Your task to perform on an android device: change your default location settings in chrome Image 0: 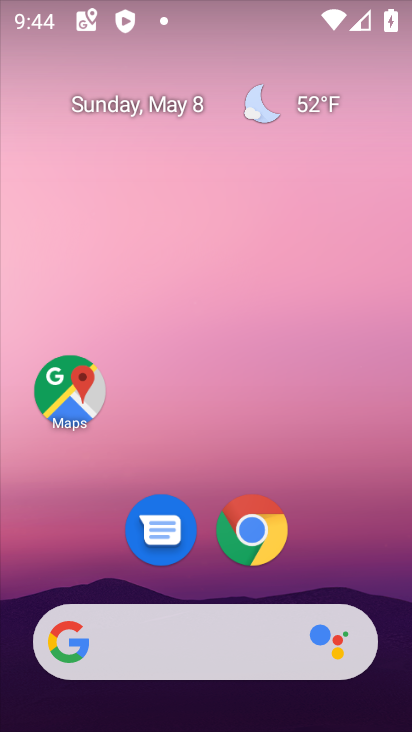
Step 0: drag from (373, 552) to (329, 126)
Your task to perform on an android device: change your default location settings in chrome Image 1: 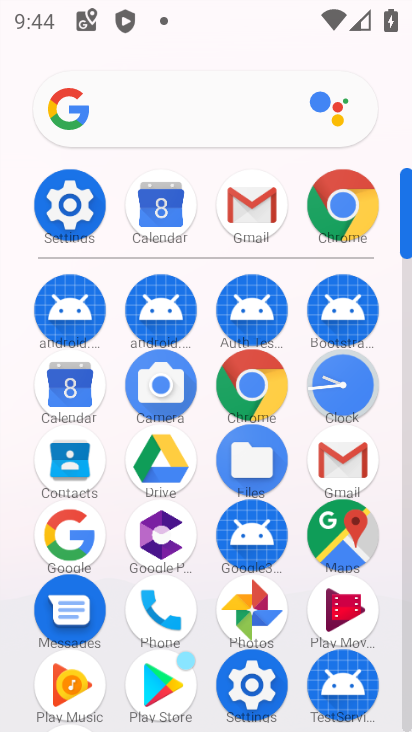
Step 1: click (266, 396)
Your task to perform on an android device: change your default location settings in chrome Image 2: 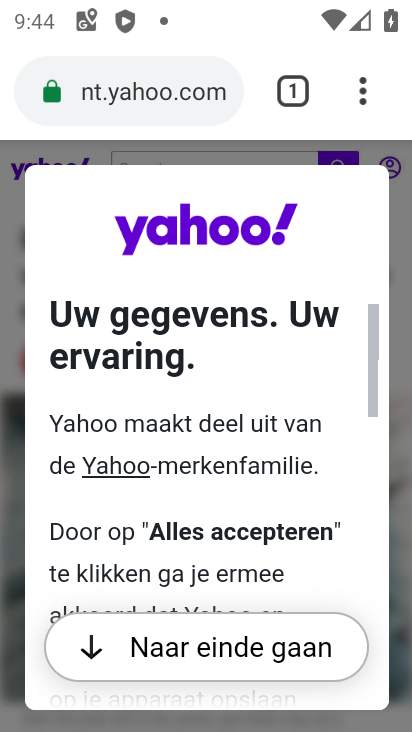
Step 2: click (226, 661)
Your task to perform on an android device: change your default location settings in chrome Image 3: 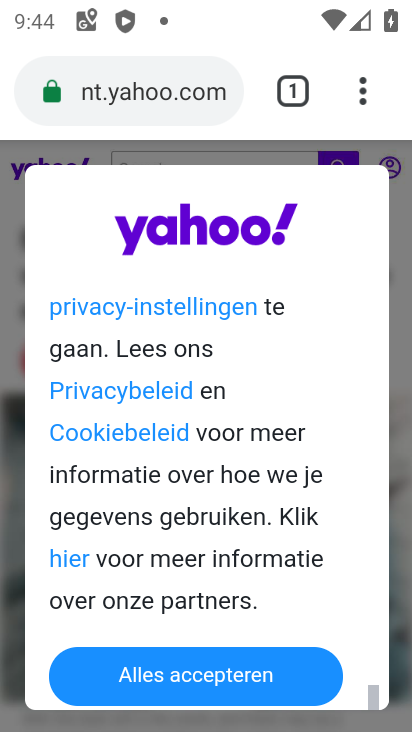
Step 3: click (239, 679)
Your task to perform on an android device: change your default location settings in chrome Image 4: 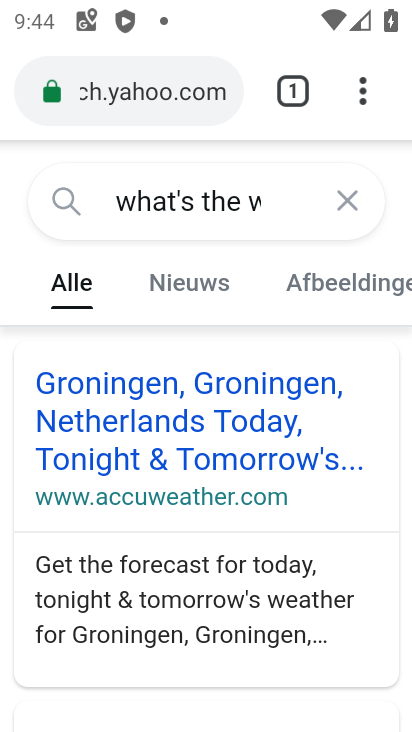
Step 4: drag from (353, 92) to (144, 555)
Your task to perform on an android device: change your default location settings in chrome Image 5: 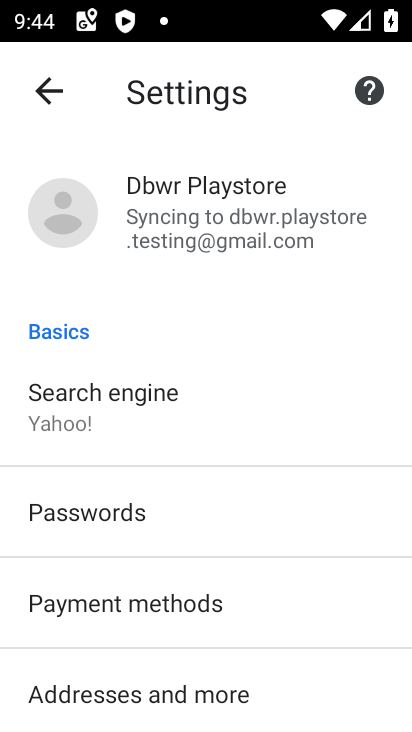
Step 5: drag from (277, 673) to (270, 533)
Your task to perform on an android device: change your default location settings in chrome Image 6: 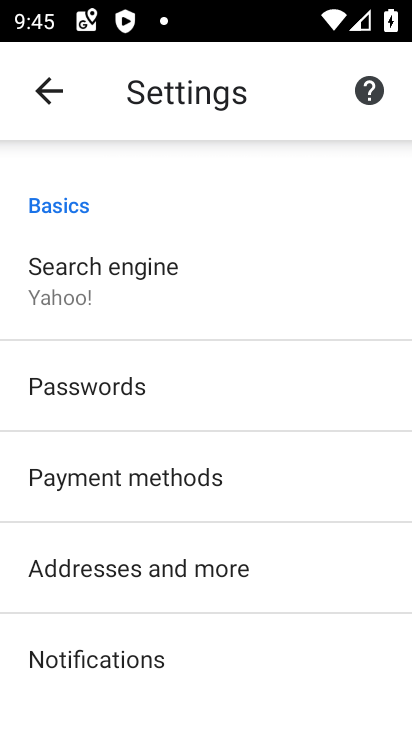
Step 6: drag from (275, 659) to (282, 478)
Your task to perform on an android device: change your default location settings in chrome Image 7: 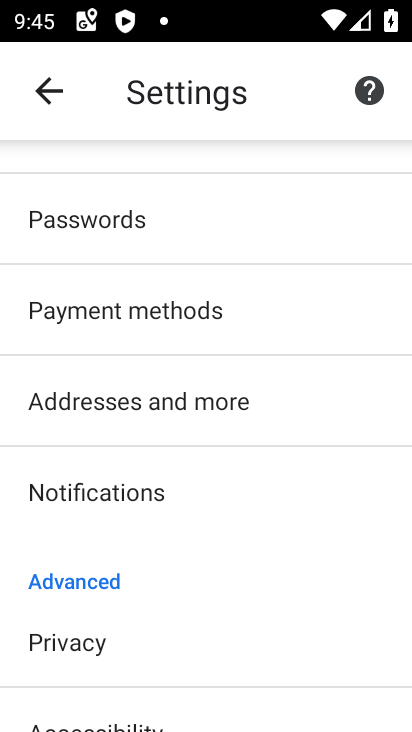
Step 7: drag from (256, 605) to (315, 350)
Your task to perform on an android device: change your default location settings in chrome Image 8: 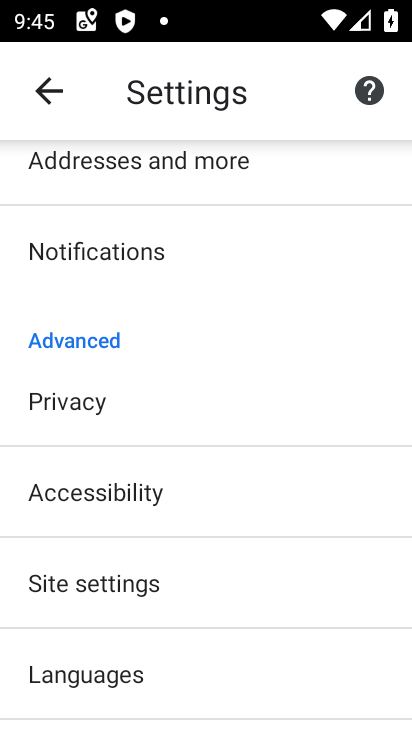
Step 8: drag from (194, 547) to (196, 398)
Your task to perform on an android device: change your default location settings in chrome Image 9: 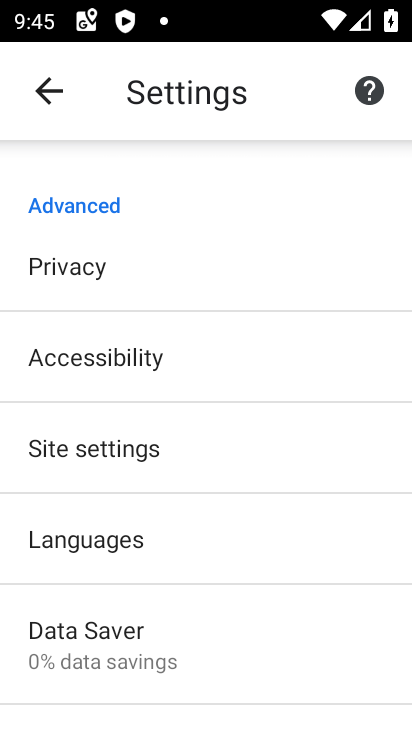
Step 9: drag from (255, 175) to (205, 708)
Your task to perform on an android device: change your default location settings in chrome Image 10: 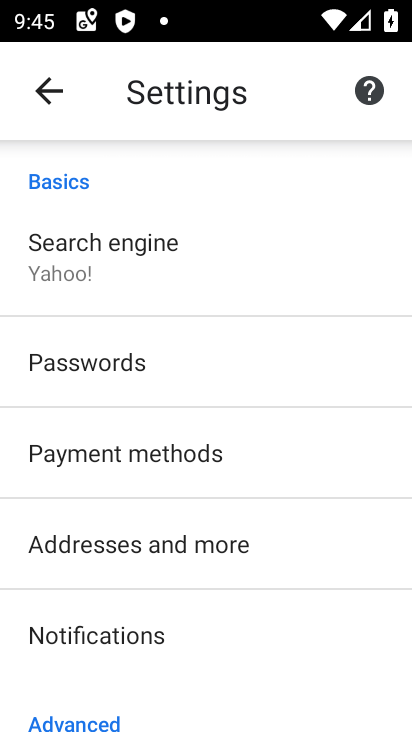
Step 10: click (118, 249)
Your task to perform on an android device: change your default location settings in chrome Image 11: 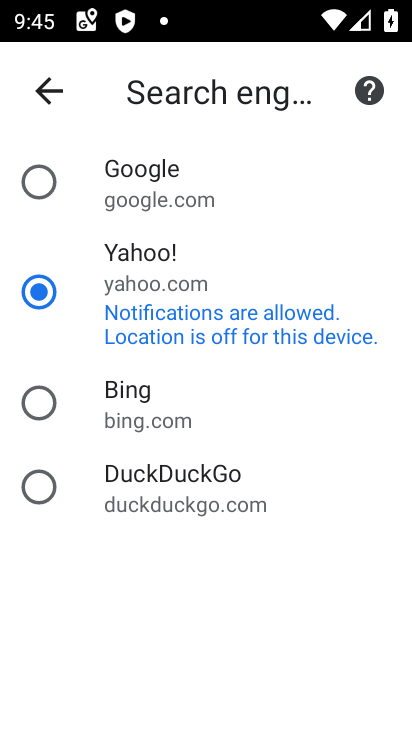
Step 11: click (51, 180)
Your task to perform on an android device: change your default location settings in chrome Image 12: 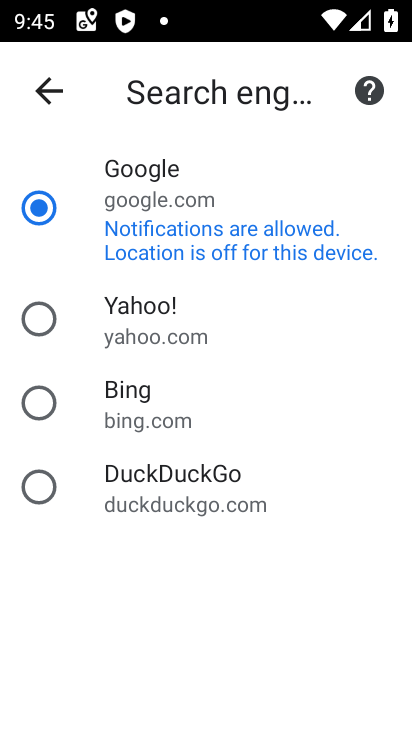
Step 12: task complete